Your task to perform on an android device: add a contact Image 0: 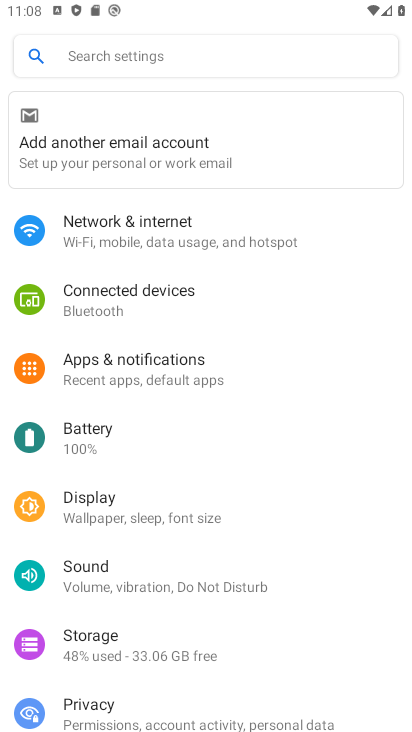
Step 0: press home button
Your task to perform on an android device: add a contact Image 1: 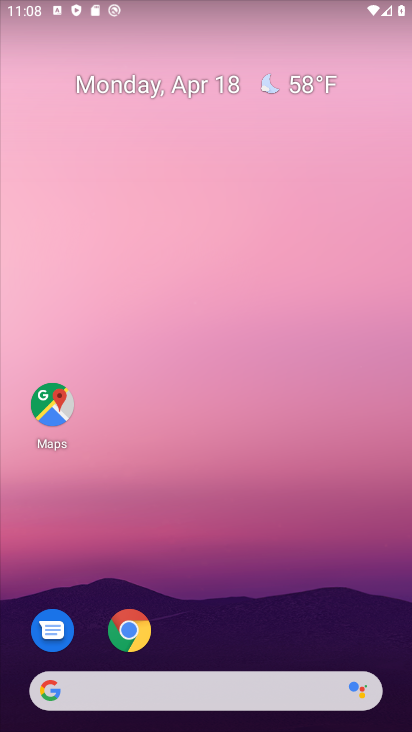
Step 1: drag from (225, 632) to (237, 204)
Your task to perform on an android device: add a contact Image 2: 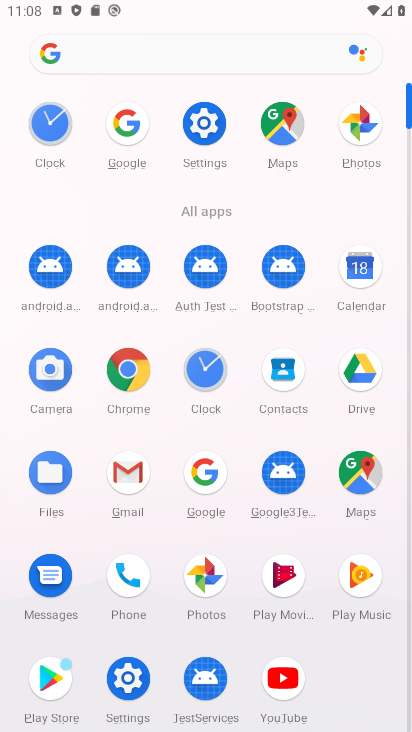
Step 2: click (268, 369)
Your task to perform on an android device: add a contact Image 3: 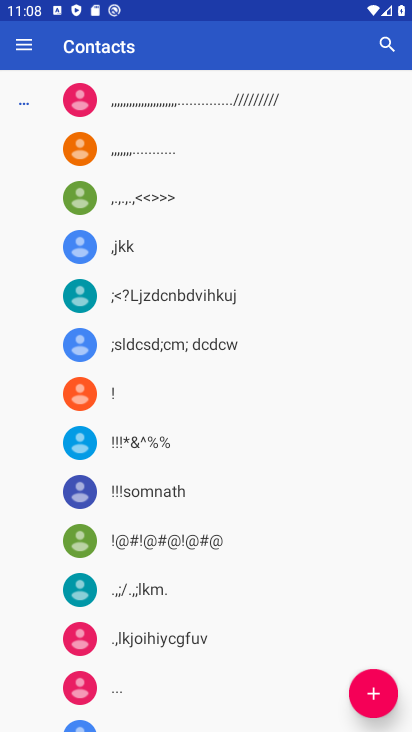
Step 3: click (360, 693)
Your task to perform on an android device: add a contact Image 4: 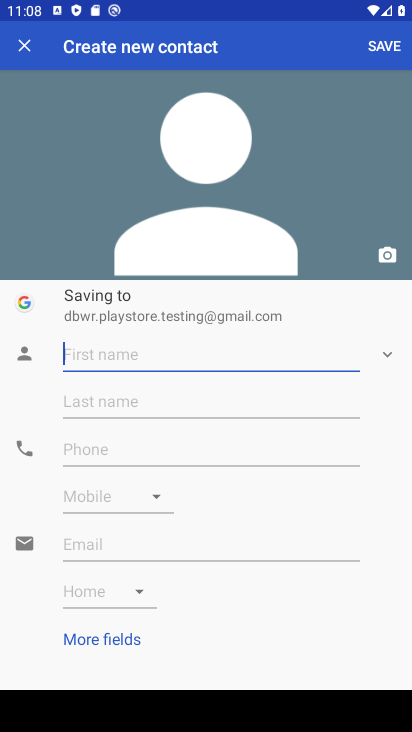
Step 4: type "@edr"
Your task to perform on an android device: add a contact Image 5: 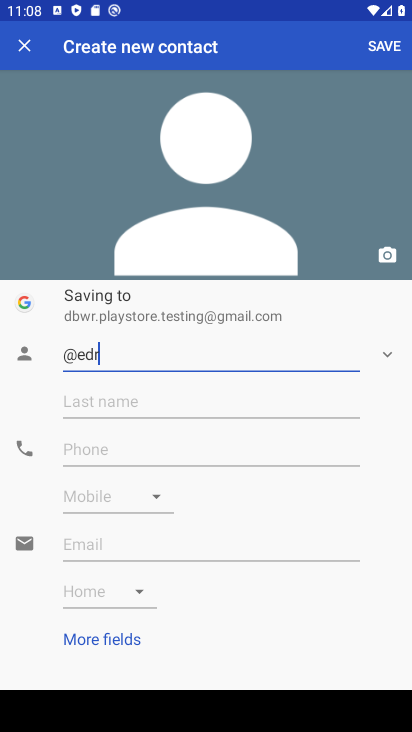
Step 5: click (170, 451)
Your task to perform on an android device: add a contact Image 6: 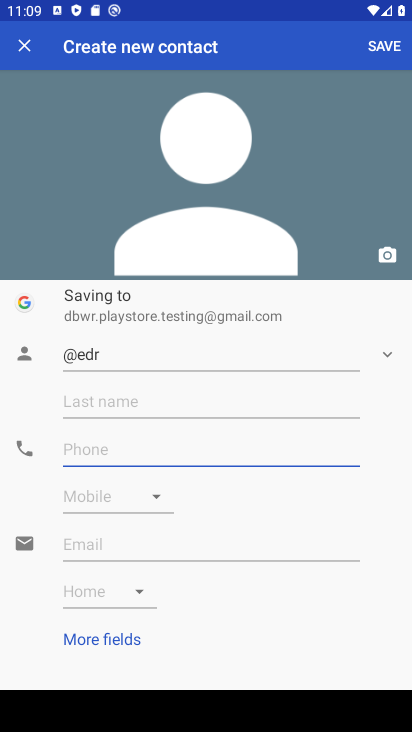
Step 6: type "6754320090"
Your task to perform on an android device: add a contact Image 7: 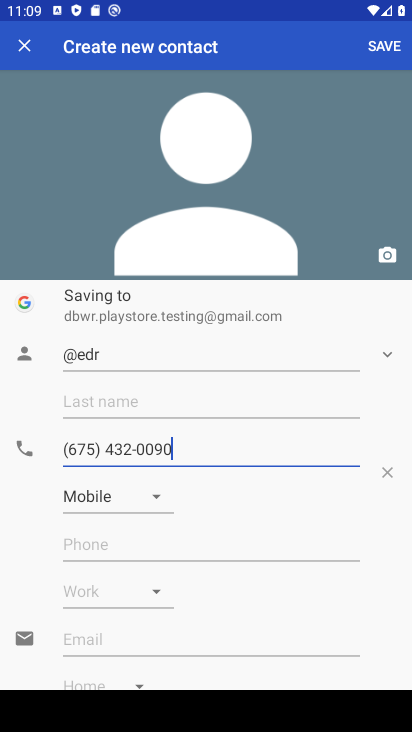
Step 7: click (384, 53)
Your task to perform on an android device: add a contact Image 8: 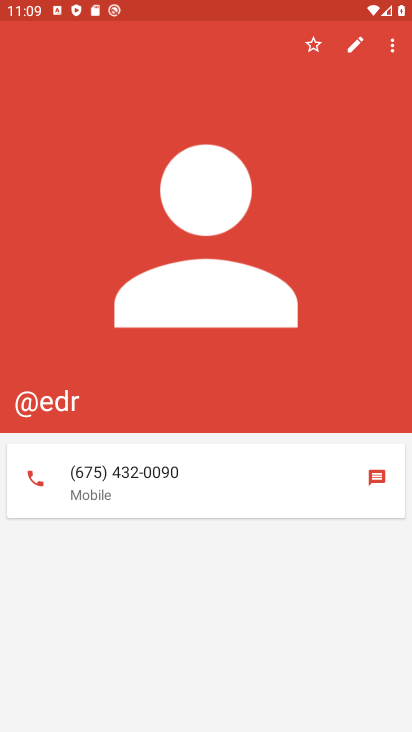
Step 8: task complete